Your task to perform on an android device: Open my contact list Image 0: 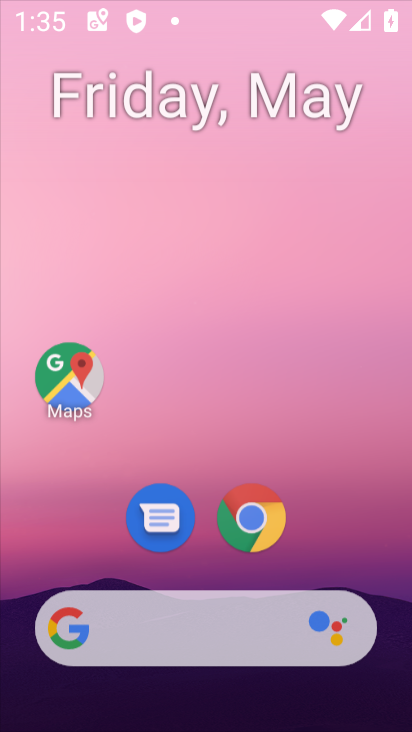
Step 0: drag from (346, 209) to (346, 143)
Your task to perform on an android device: Open my contact list Image 1: 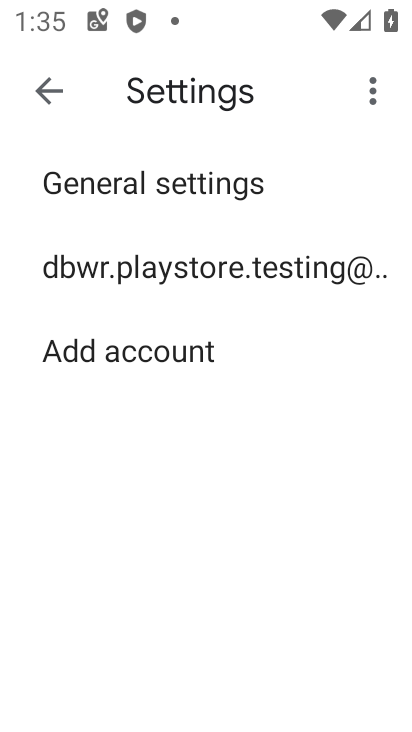
Step 1: press home button
Your task to perform on an android device: Open my contact list Image 2: 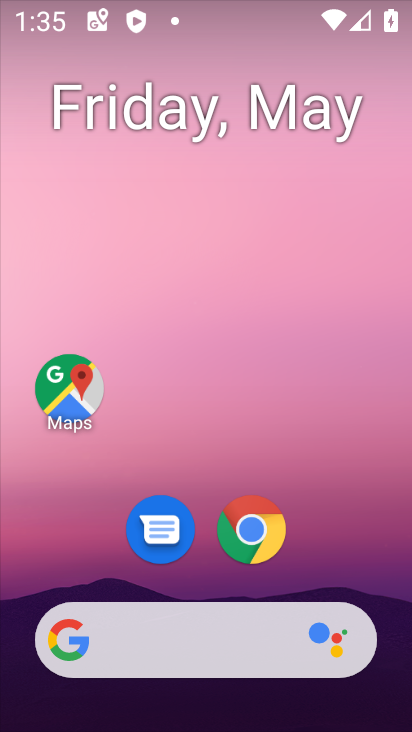
Step 2: drag from (331, 580) to (267, 28)
Your task to perform on an android device: Open my contact list Image 3: 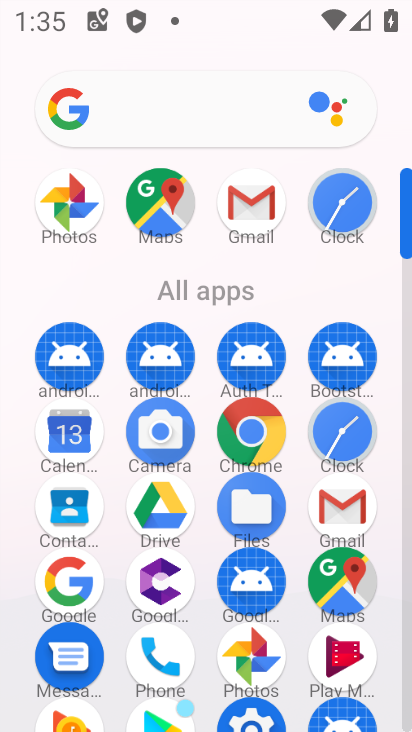
Step 3: drag from (286, 674) to (293, 299)
Your task to perform on an android device: Open my contact list Image 4: 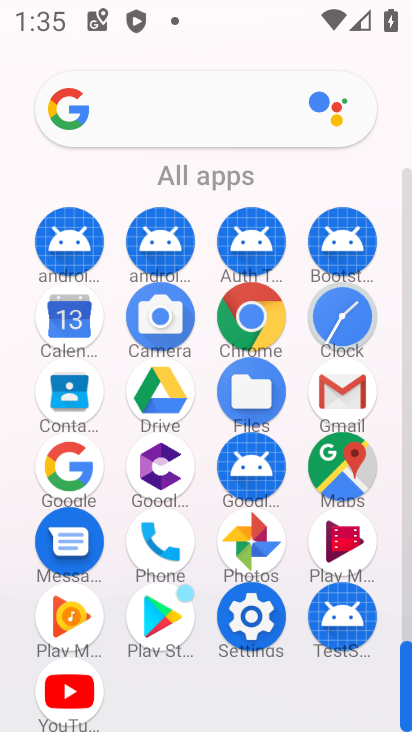
Step 4: click (72, 389)
Your task to perform on an android device: Open my contact list Image 5: 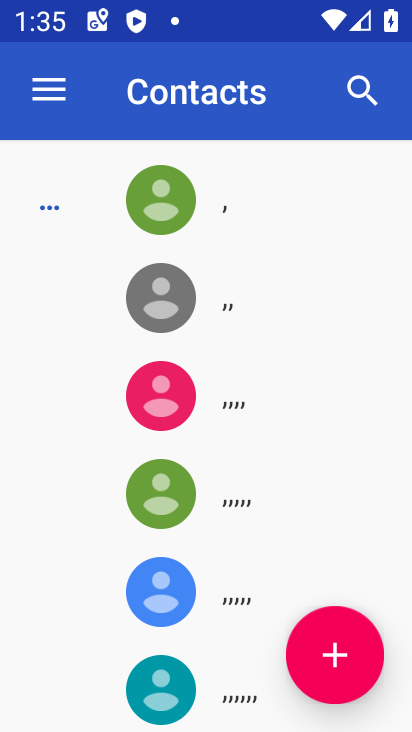
Step 5: task complete